Your task to perform on an android device: open a bookmark in the chrome app Image 0: 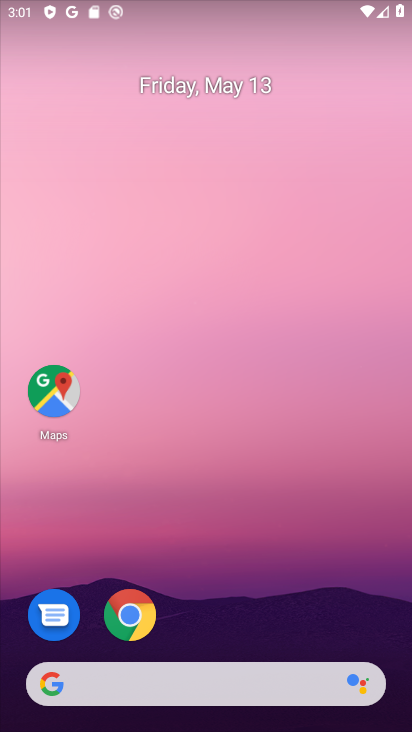
Step 0: click (127, 619)
Your task to perform on an android device: open a bookmark in the chrome app Image 1: 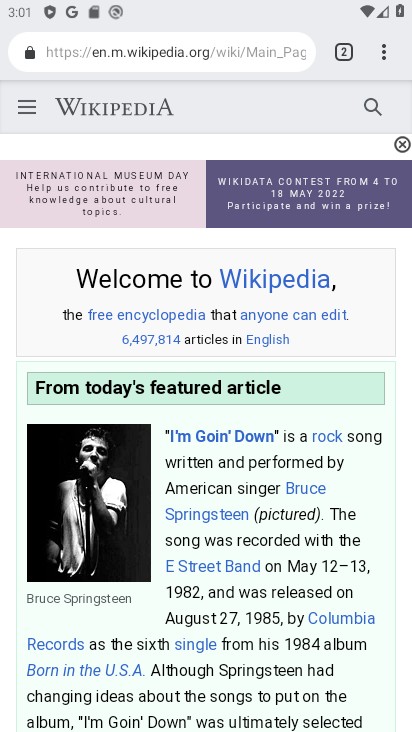
Step 1: task complete